Your task to perform on an android device: open app "Etsy: Buy & Sell Unique Items" Image 0: 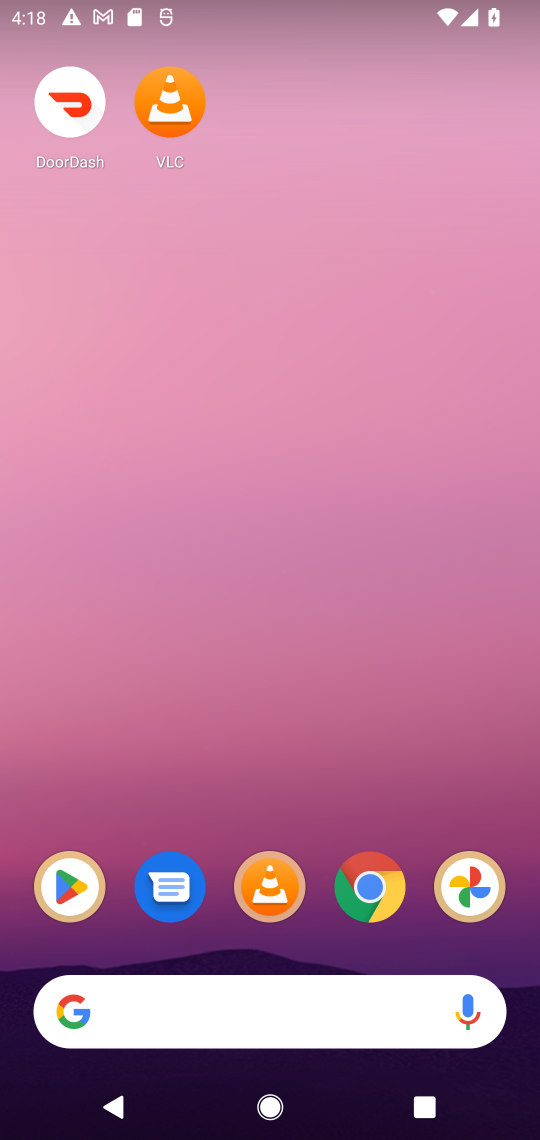
Step 0: click (76, 879)
Your task to perform on an android device: open app "Etsy: Buy & Sell Unique Items" Image 1: 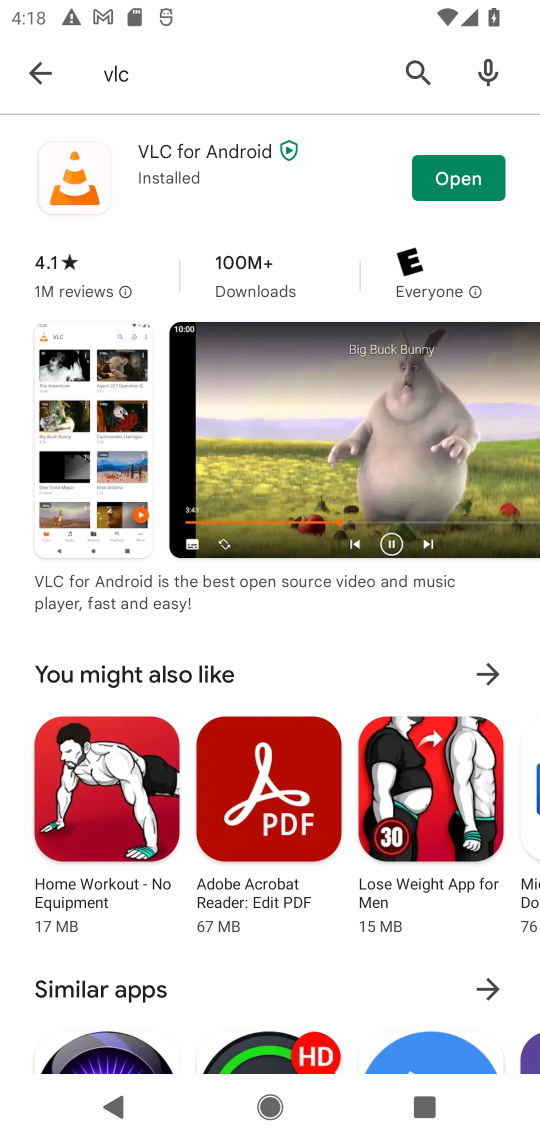
Step 1: click (25, 66)
Your task to perform on an android device: open app "Etsy: Buy & Sell Unique Items" Image 2: 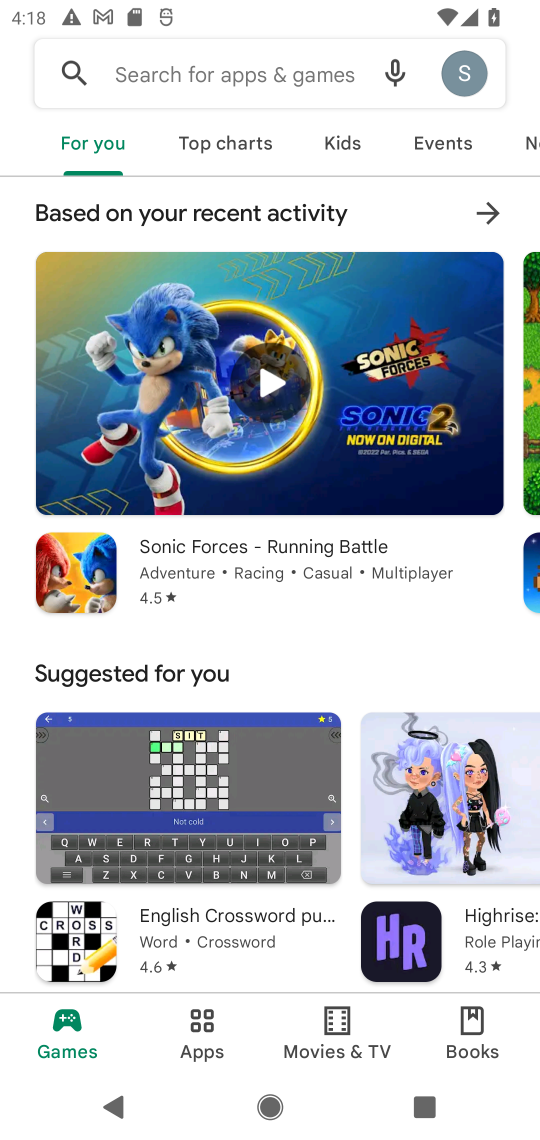
Step 2: click (216, 77)
Your task to perform on an android device: open app "Etsy: Buy & Sell Unique Items" Image 3: 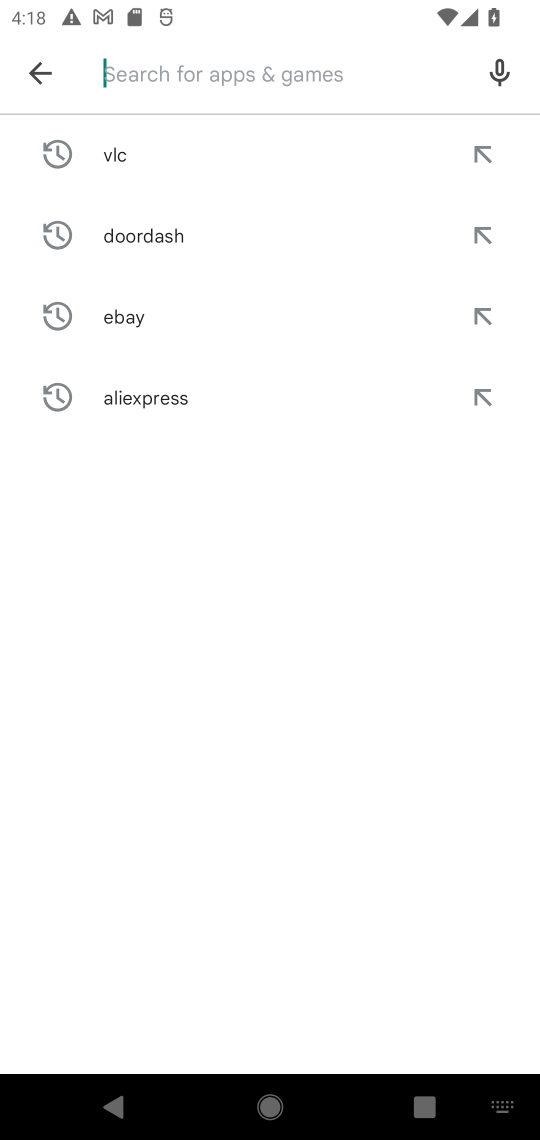
Step 3: type "Etsy"
Your task to perform on an android device: open app "Etsy: Buy & Sell Unique Items" Image 4: 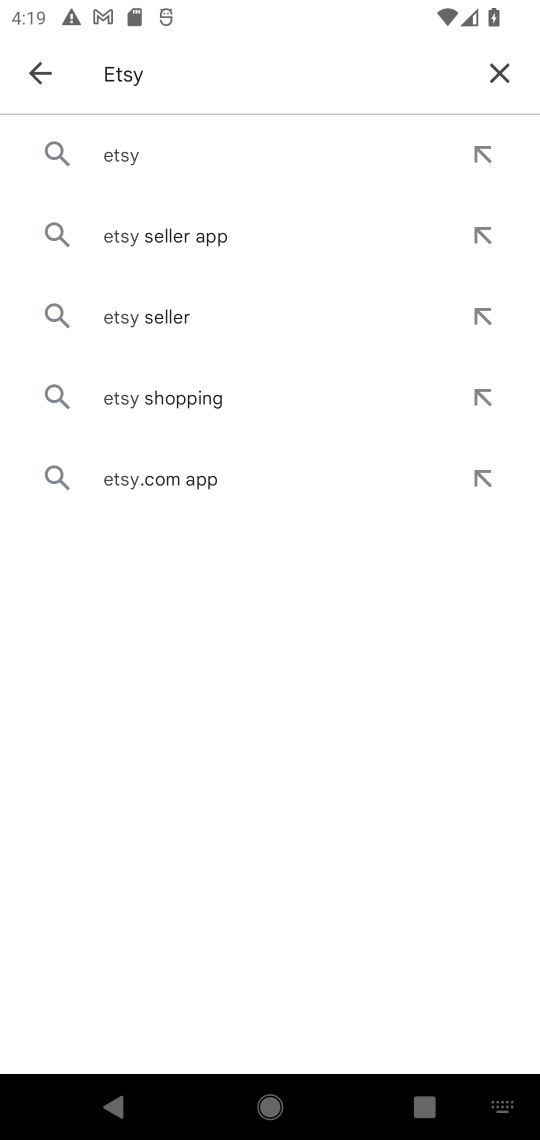
Step 4: click (162, 158)
Your task to perform on an android device: open app "Etsy: Buy & Sell Unique Items" Image 5: 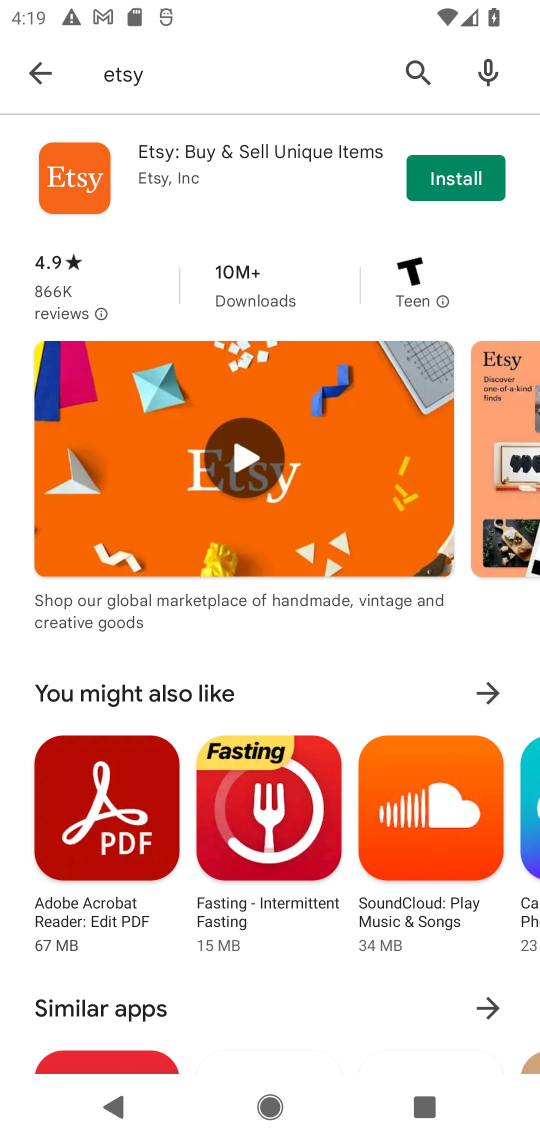
Step 5: task complete